Your task to perform on an android device: toggle priority inbox in the gmail app Image 0: 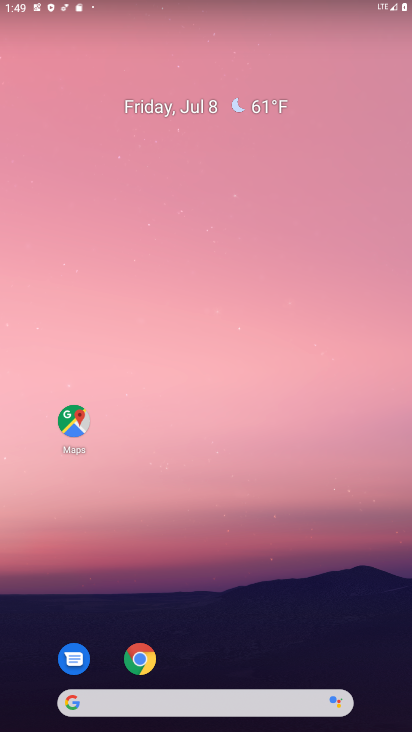
Step 0: drag from (217, 681) to (177, 15)
Your task to perform on an android device: toggle priority inbox in the gmail app Image 1: 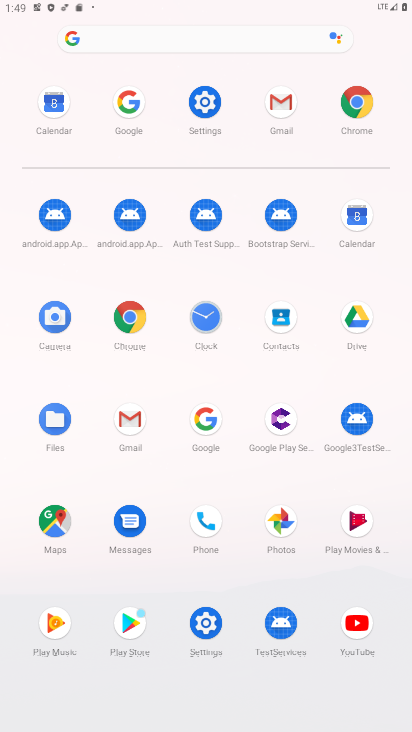
Step 1: click (273, 104)
Your task to perform on an android device: toggle priority inbox in the gmail app Image 2: 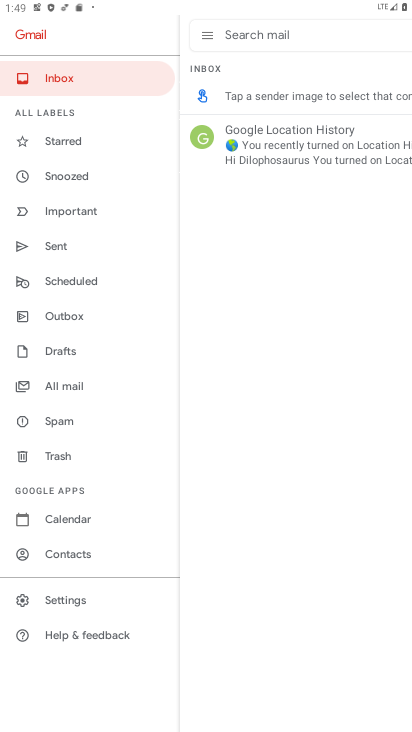
Step 2: click (47, 608)
Your task to perform on an android device: toggle priority inbox in the gmail app Image 3: 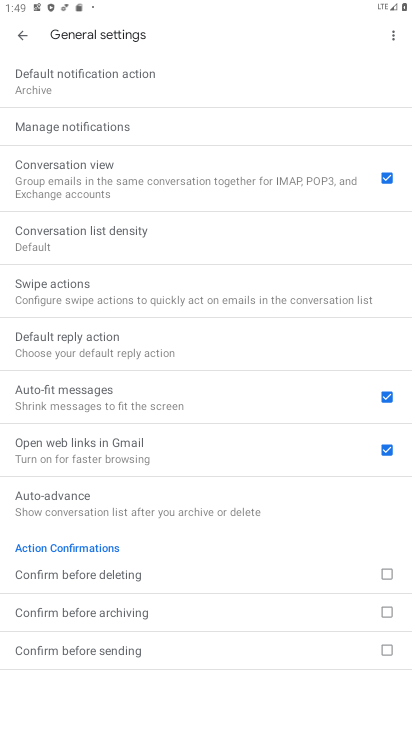
Step 3: click (20, 48)
Your task to perform on an android device: toggle priority inbox in the gmail app Image 4: 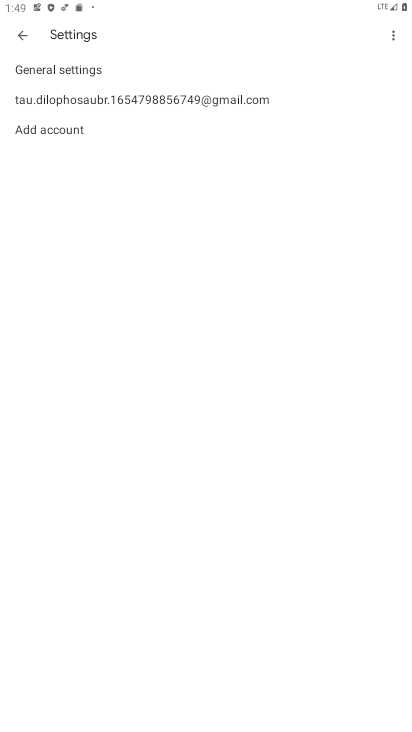
Step 4: click (81, 99)
Your task to perform on an android device: toggle priority inbox in the gmail app Image 5: 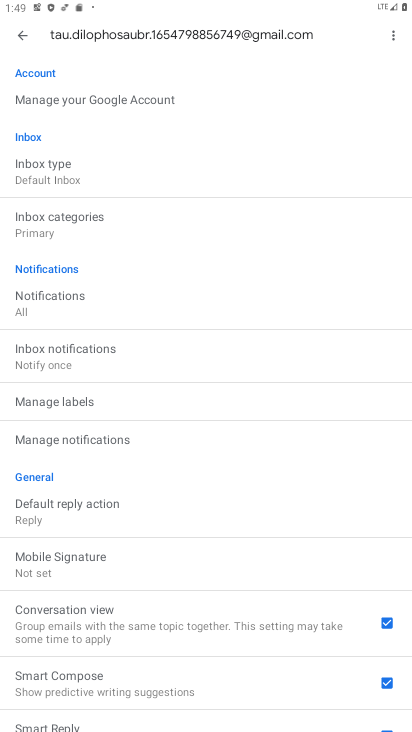
Step 5: click (66, 178)
Your task to perform on an android device: toggle priority inbox in the gmail app Image 6: 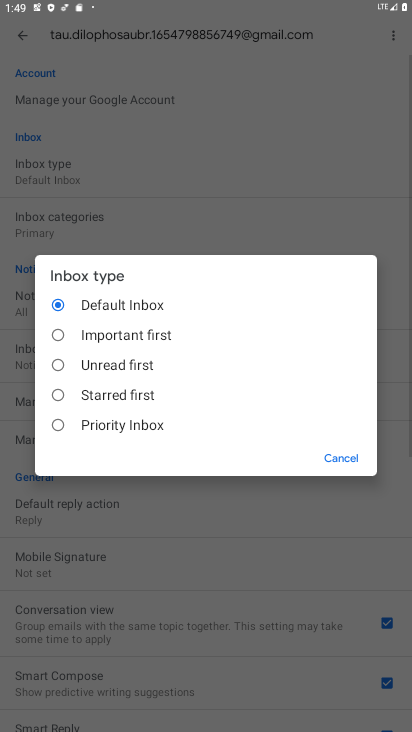
Step 6: click (112, 423)
Your task to perform on an android device: toggle priority inbox in the gmail app Image 7: 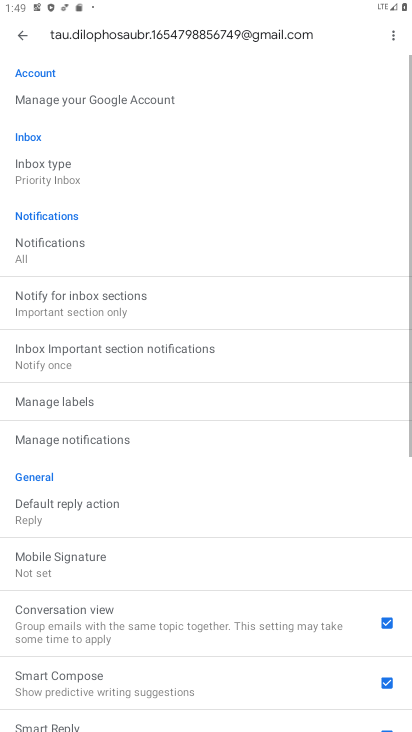
Step 7: task complete